Your task to perform on an android device: Open Google Maps and go to "Timeline" Image 0: 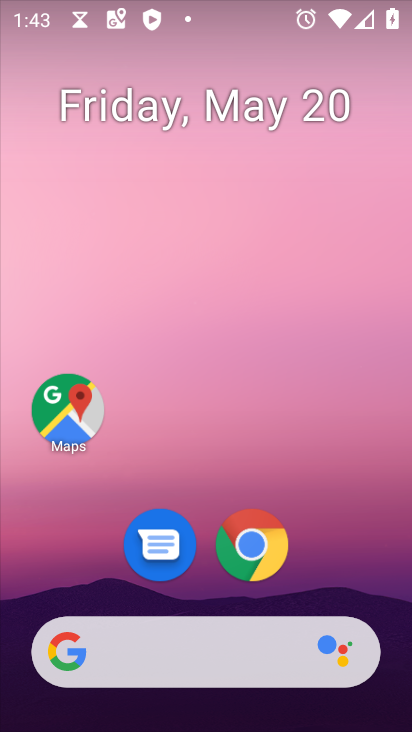
Step 0: click (52, 408)
Your task to perform on an android device: Open Google Maps and go to "Timeline" Image 1: 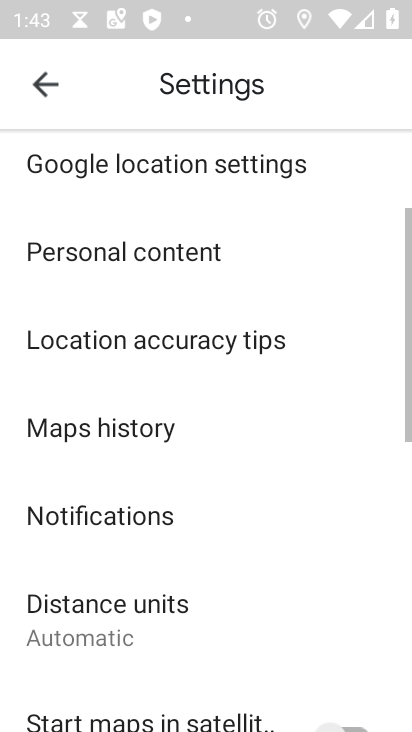
Step 1: click (56, 86)
Your task to perform on an android device: Open Google Maps and go to "Timeline" Image 2: 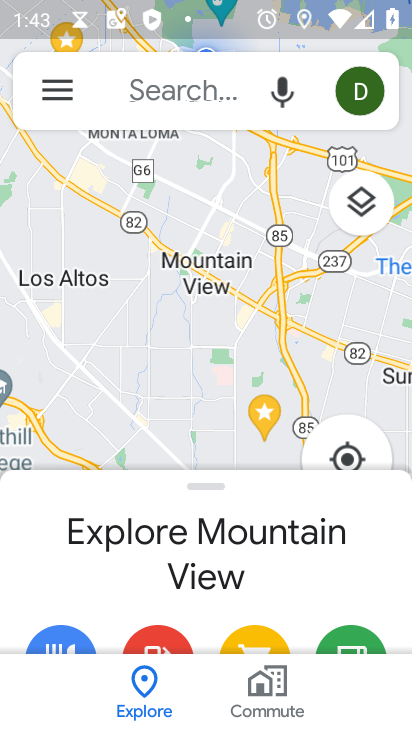
Step 2: click (68, 96)
Your task to perform on an android device: Open Google Maps and go to "Timeline" Image 3: 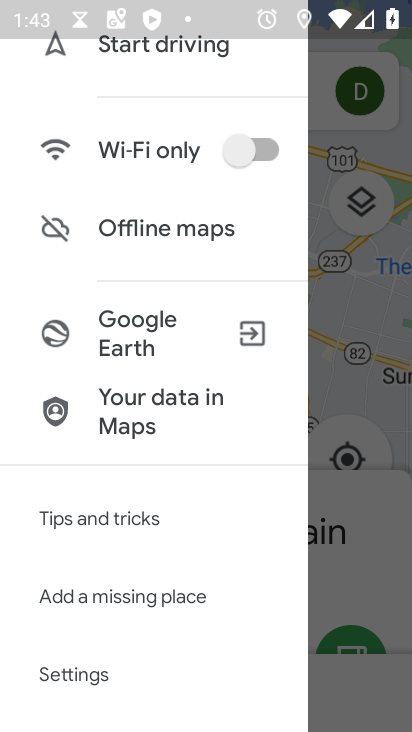
Step 3: drag from (167, 197) to (182, 400)
Your task to perform on an android device: Open Google Maps and go to "Timeline" Image 4: 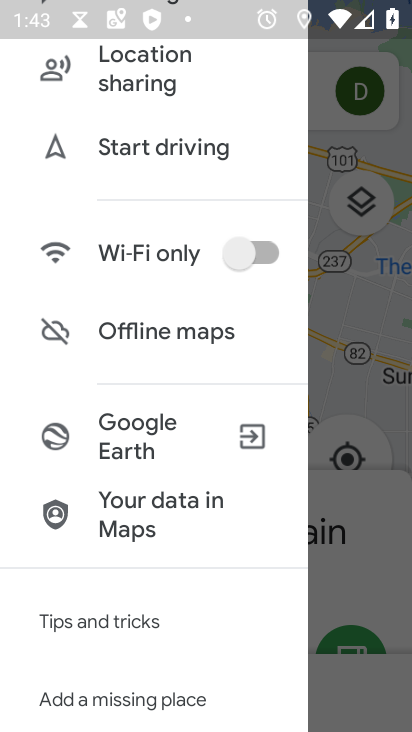
Step 4: drag from (162, 192) to (136, 663)
Your task to perform on an android device: Open Google Maps and go to "Timeline" Image 5: 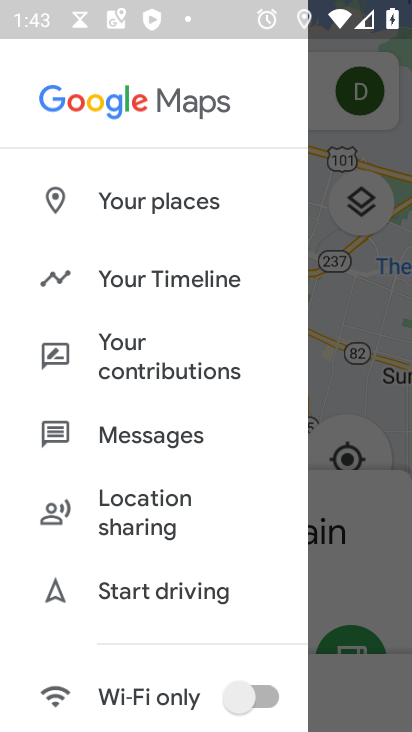
Step 5: click (152, 277)
Your task to perform on an android device: Open Google Maps and go to "Timeline" Image 6: 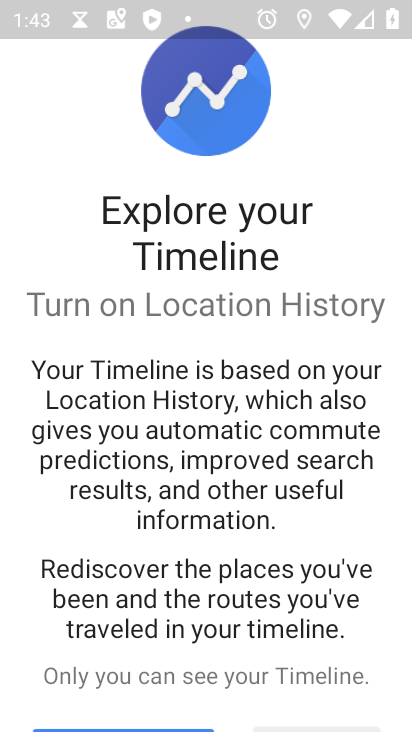
Step 6: drag from (312, 644) to (342, 249)
Your task to perform on an android device: Open Google Maps and go to "Timeline" Image 7: 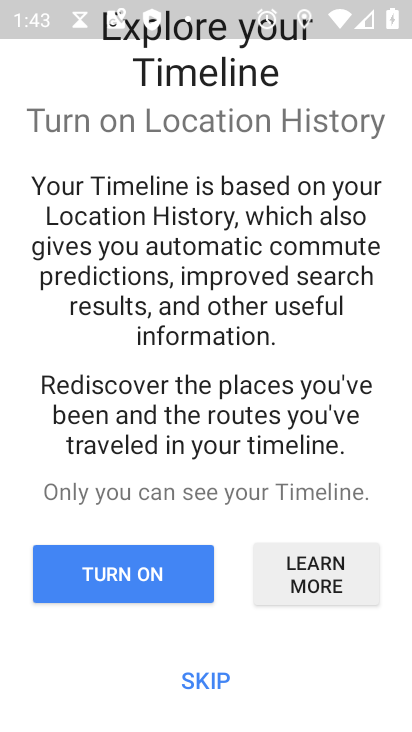
Step 7: click (163, 581)
Your task to perform on an android device: Open Google Maps and go to "Timeline" Image 8: 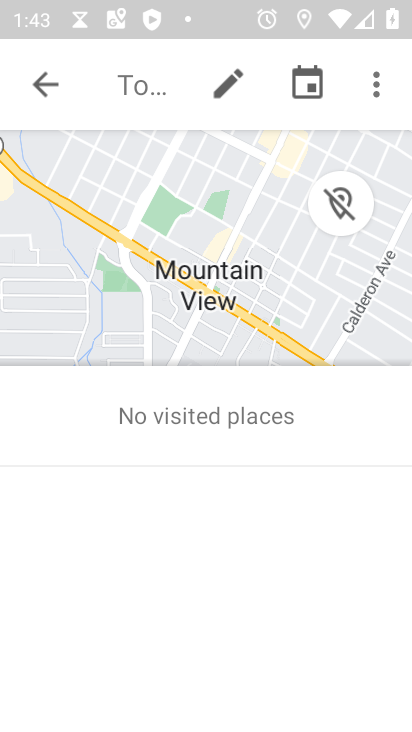
Step 8: task complete